Your task to perform on an android device: Open calendar and show me the second week of next month Image 0: 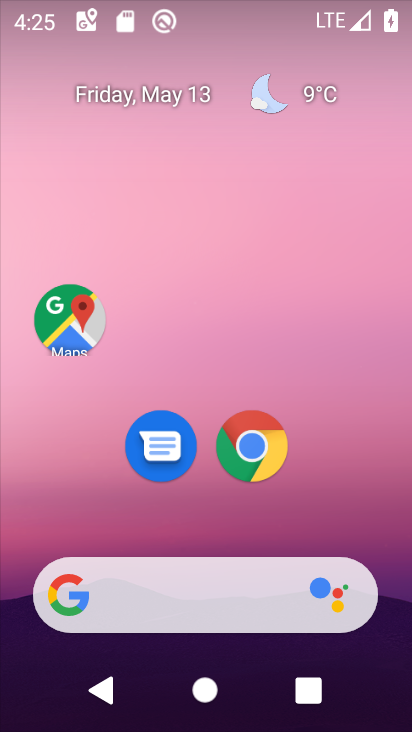
Step 0: drag from (249, 495) to (297, 99)
Your task to perform on an android device: Open calendar and show me the second week of next month Image 1: 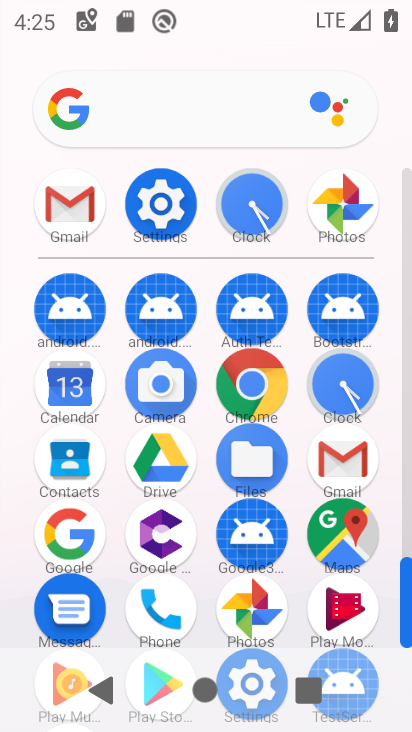
Step 1: click (76, 404)
Your task to perform on an android device: Open calendar and show me the second week of next month Image 2: 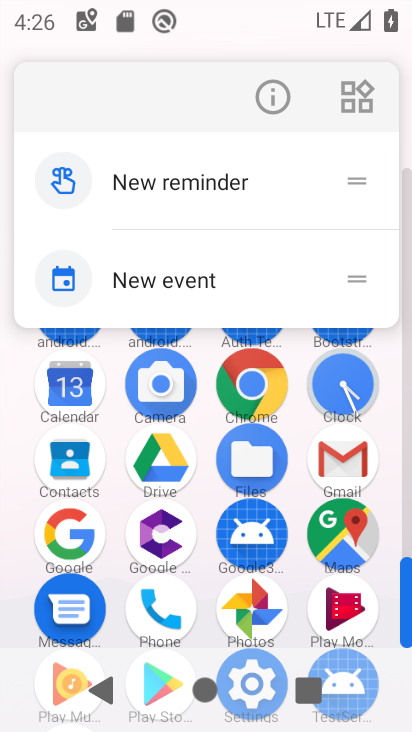
Step 2: click (68, 399)
Your task to perform on an android device: Open calendar and show me the second week of next month Image 3: 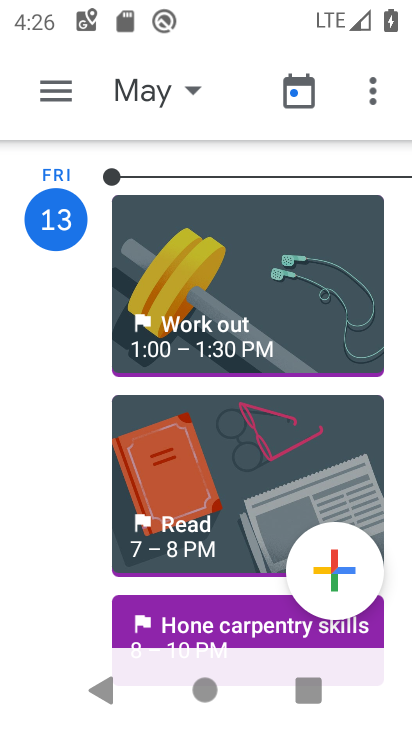
Step 3: click (123, 91)
Your task to perform on an android device: Open calendar and show me the second week of next month Image 4: 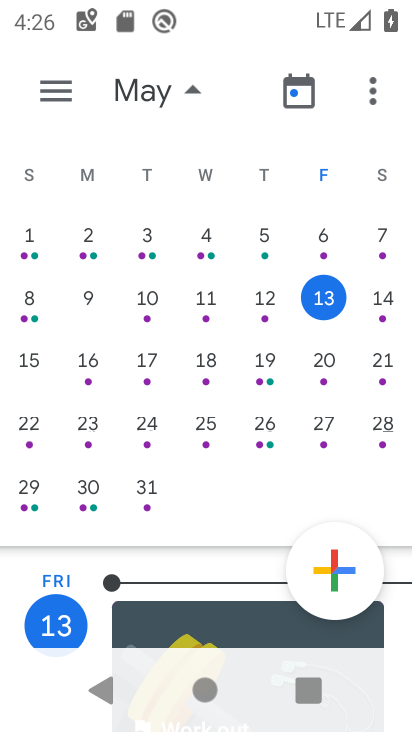
Step 4: drag from (344, 302) to (27, 315)
Your task to perform on an android device: Open calendar and show me the second week of next month Image 5: 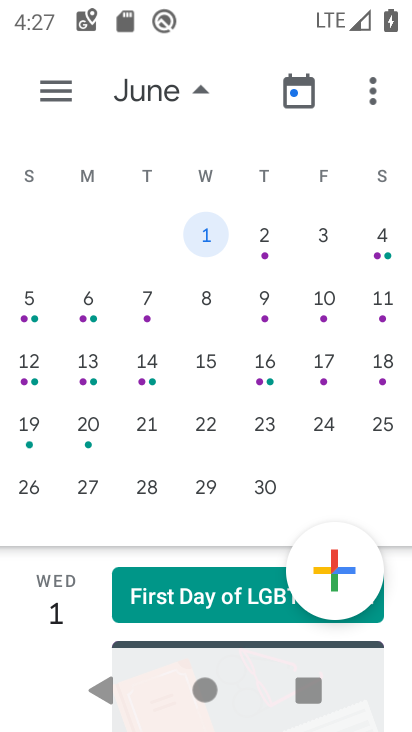
Step 5: click (26, 308)
Your task to perform on an android device: Open calendar and show me the second week of next month Image 6: 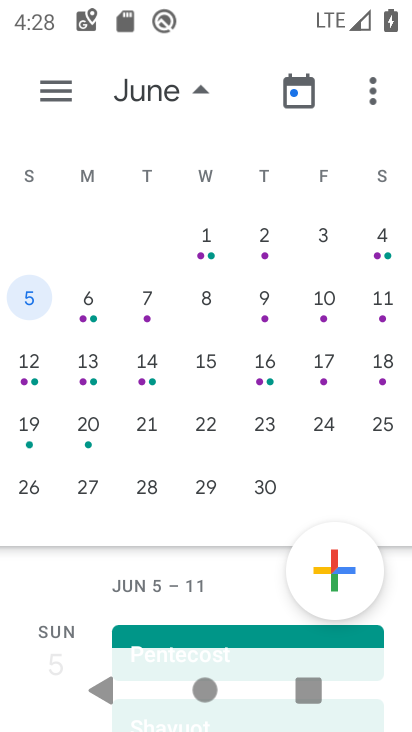
Step 6: task complete